Your task to perform on an android device: check battery use Image 0: 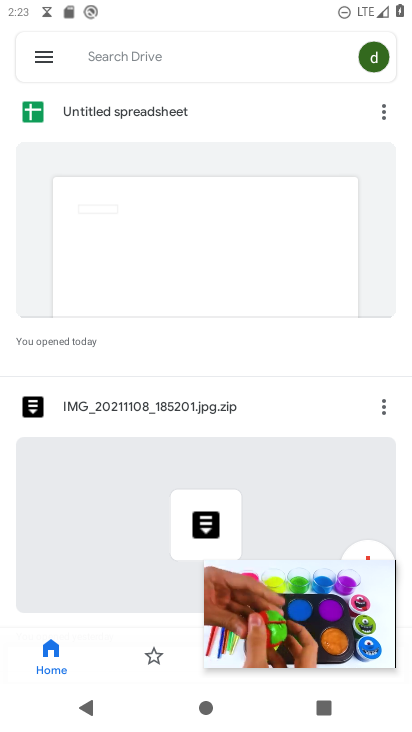
Step 0: click (372, 580)
Your task to perform on an android device: check battery use Image 1: 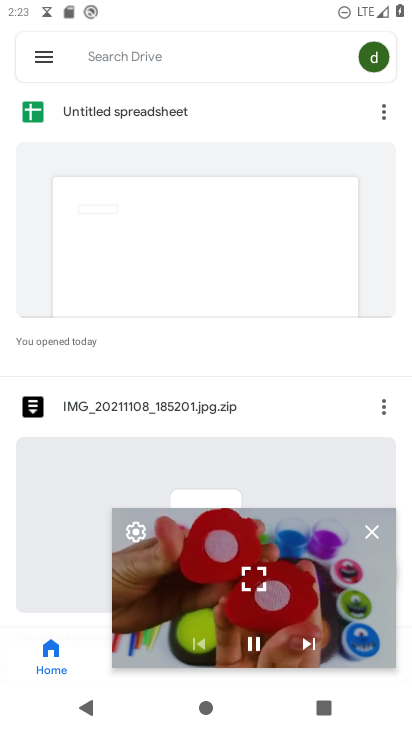
Step 1: click (367, 534)
Your task to perform on an android device: check battery use Image 2: 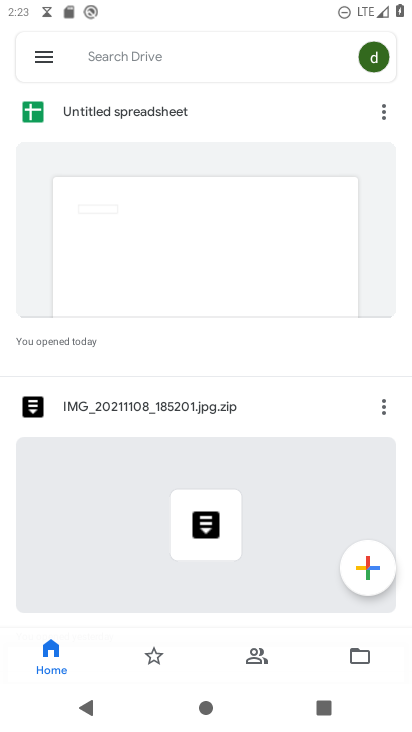
Step 2: press home button
Your task to perform on an android device: check battery use Image 3: 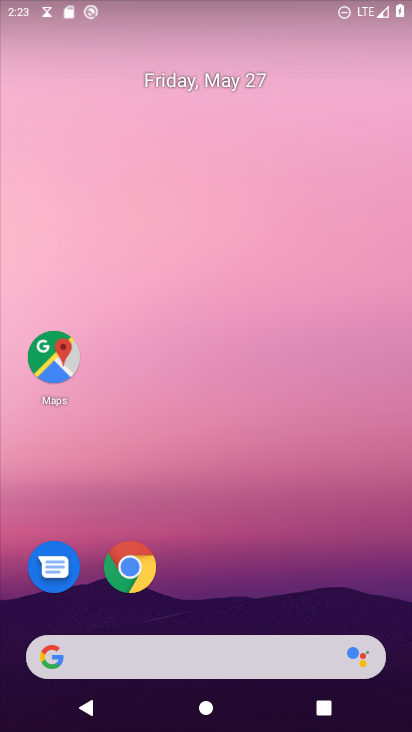
Step 3: drag from (230, 611) to (197, 196)
Your task to perform on an android device: check battery use Image 4: 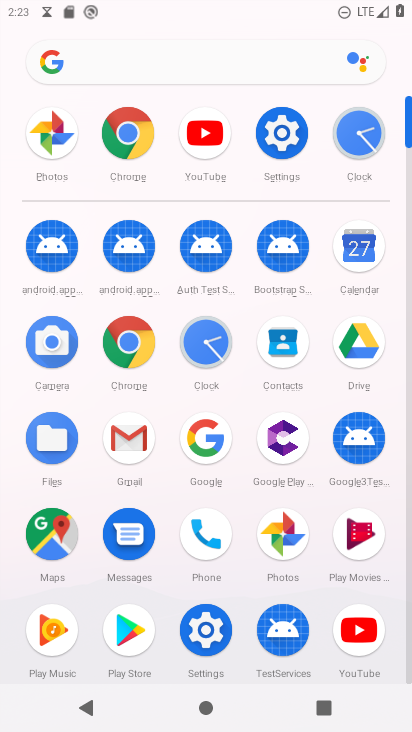
Step 4: click (279, 142)
Your task to perform on an android device: check battery use Image 5: 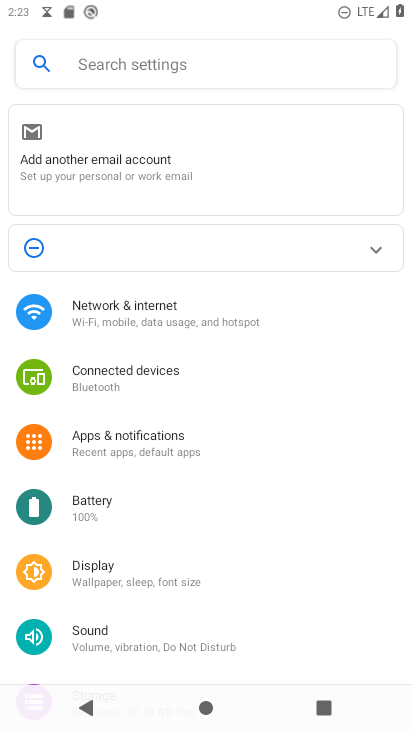
Step 5: click (121, 521)
Your task to perform on an android device: check battery use Image 6: 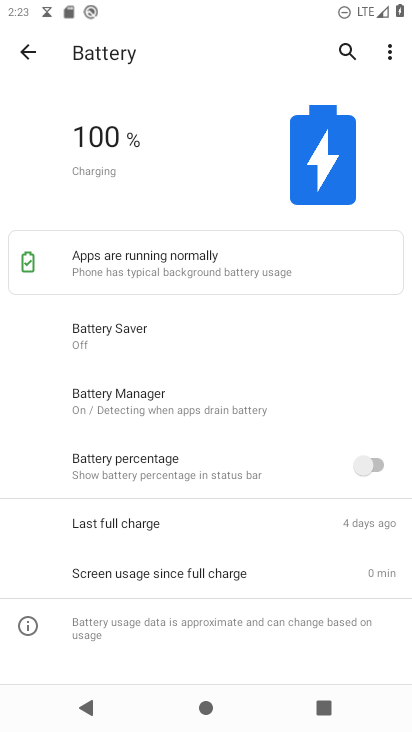
Step 6: click (383, 55)
Your task to perform on an android device: check battery use Image 7: 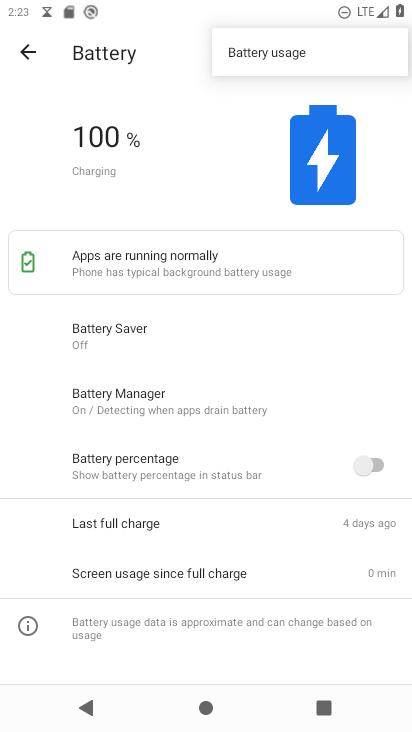
Step 7: click (299, 52)
Your task to perform on an android device: check battery use Image 8: 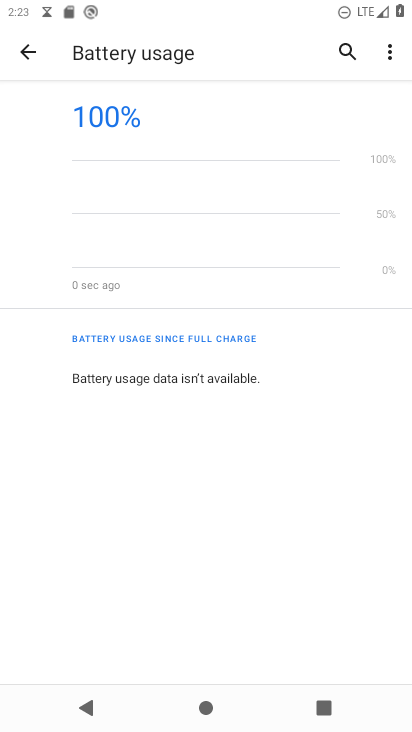
Step 8: task complete